Your task to perform on an android device: open wifi settings Image 0: 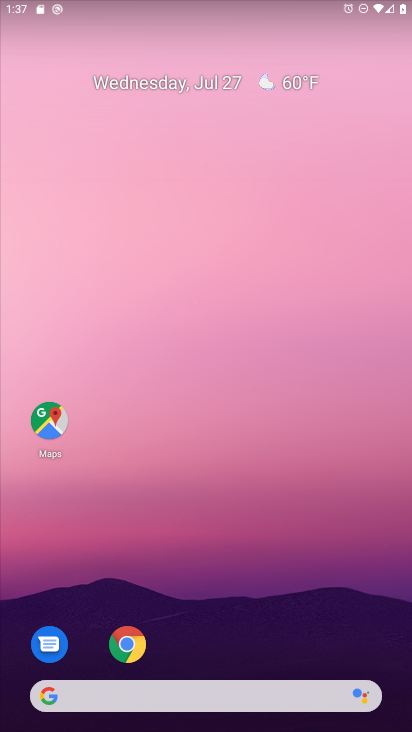
Step 0: drag from (190, 662) to (252, 172)
Your task to perform on an android device: open wifi settings Image 1: 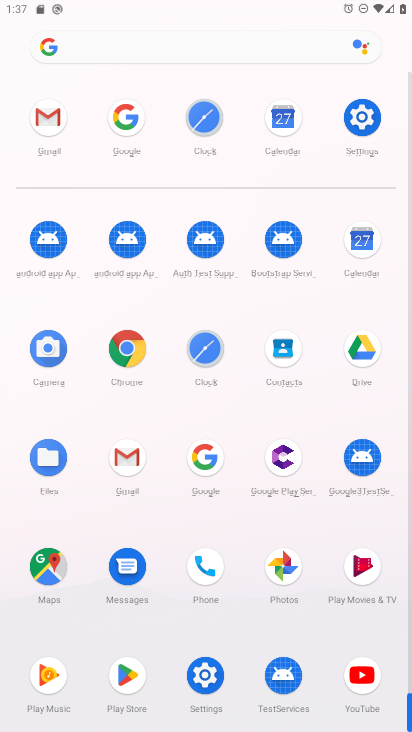
Step 1: click (212, 675)
Your task to perform on an android device: open wifi settings Image 2: 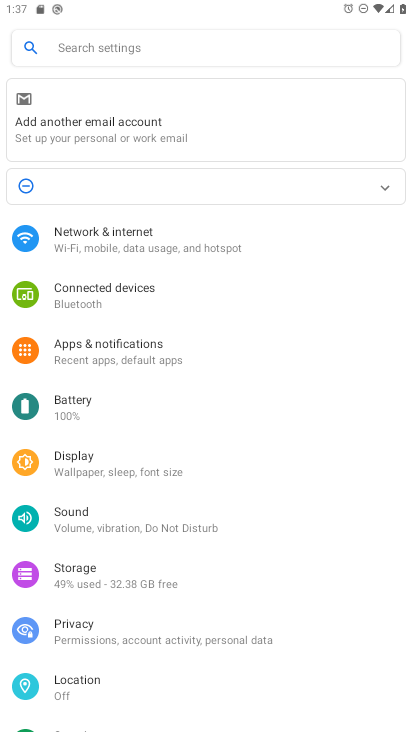
Step 2: click (147, 222)
Your task to perform on an android device: open wifi settings Image 3: 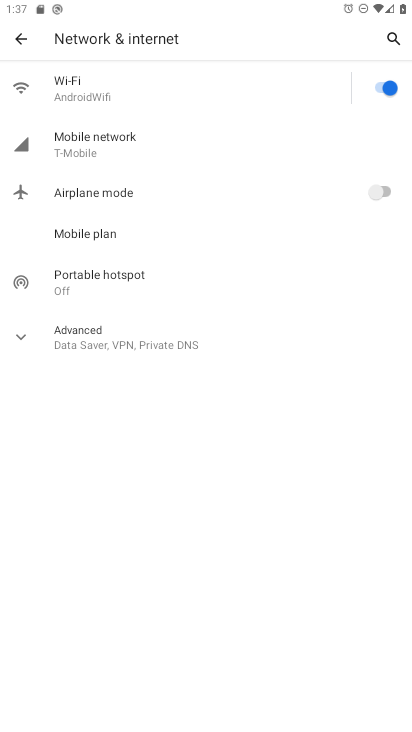
Step 3: drag from (176, 530) to (178, 351)
Your task to perform on an android device: open wifi settings Image 4: 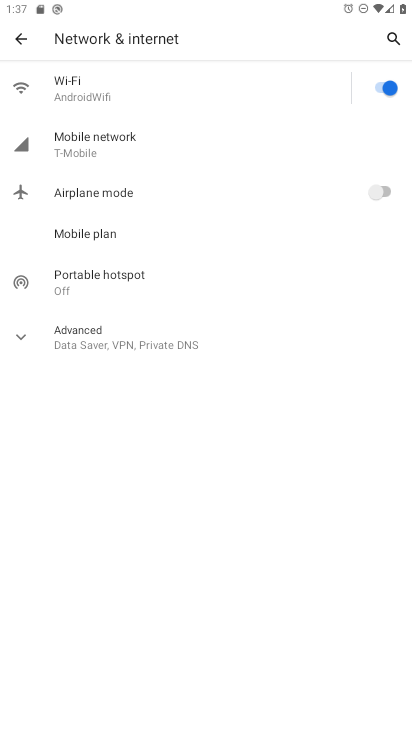
Step 4: drag from (216, 541) to (250, 99)
Your task to perform on an android device: open wifi settings Image 5: 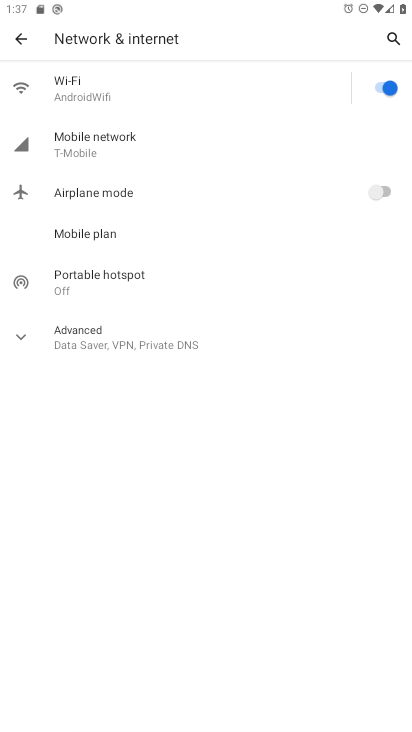
Step 5: drag from (154, 443) to (154, 234)
Your task to perform on an android device: open wifi settings Image 6: 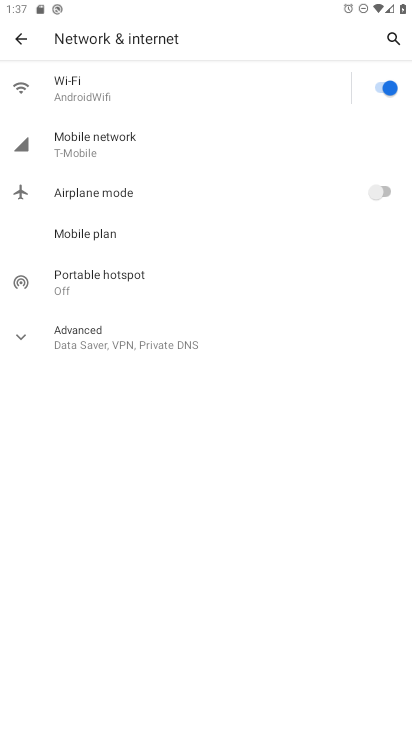
Step 6: click (184, 89)
Your task to perform on an android device: open wifi settings Image 7: 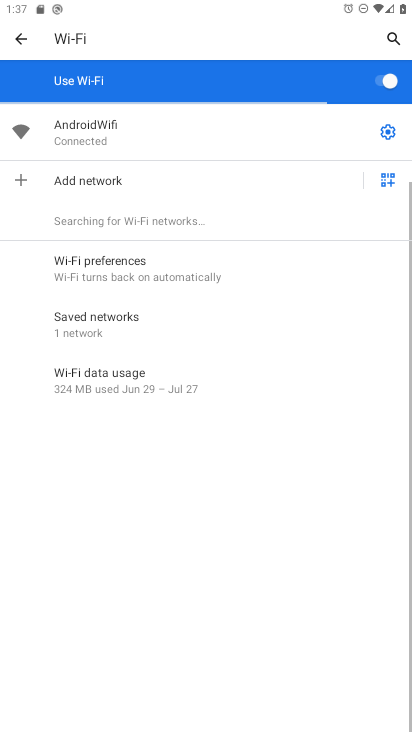
Step 7: click (384, 142)
Your task to perform on an android device: open wifi settings Image 8: 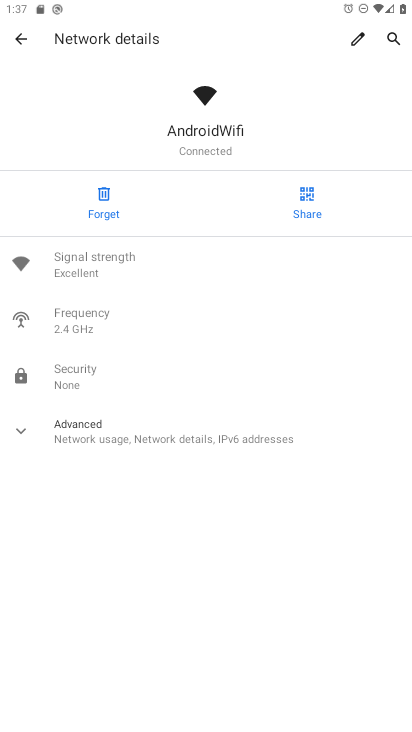
Step 8: task complete